Your task to perform on an android device: Search for Italian restaurants on Maps Image 0: 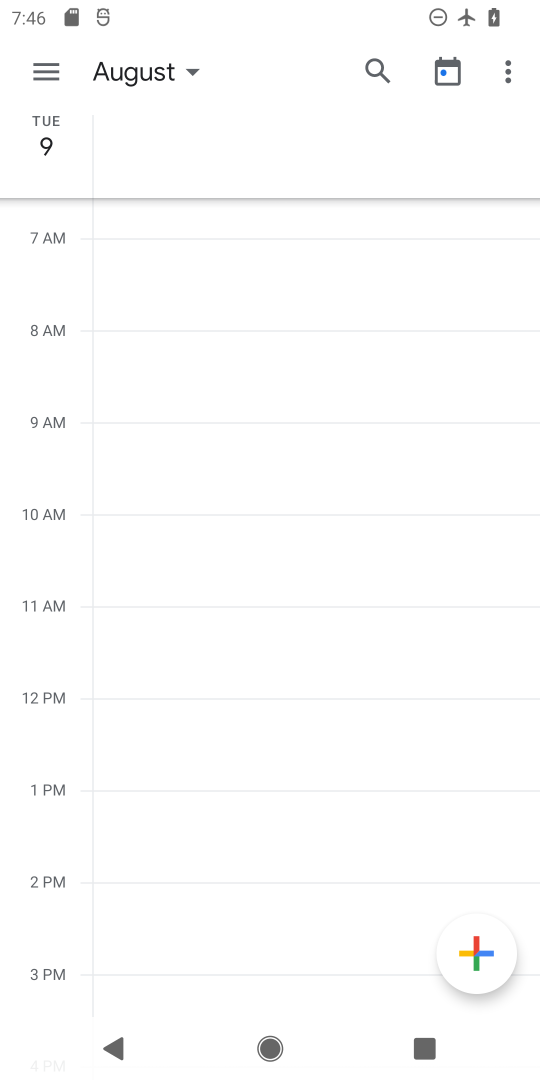
Step 0: press home button
Your task to perform on an android device: Search for Italian restaurants on Maps Image 1: 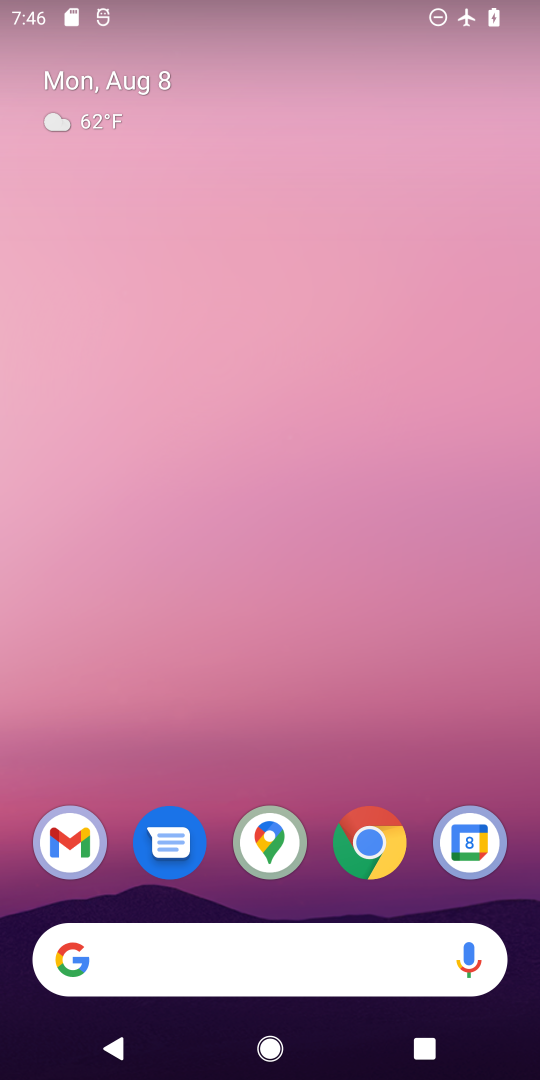
Step 1: drag from (319, 921) to (253, 207)
Your task to perform on an android device: Search for Italian restaurants on Maps Image 2: 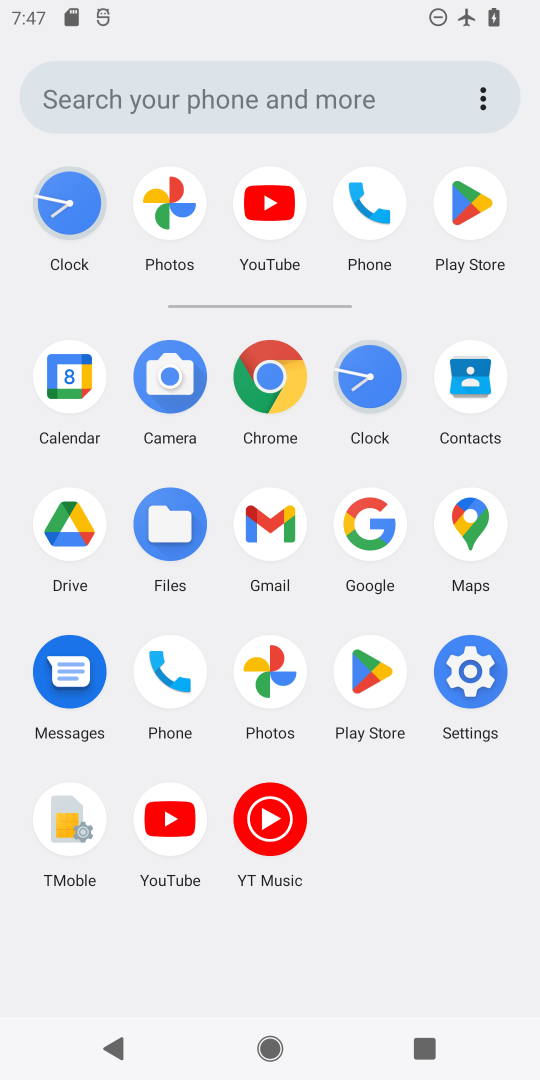
Step 2: click (478, 530)
Your task to perform on an android device: Search for Italian restaurants on Maps Image 3: 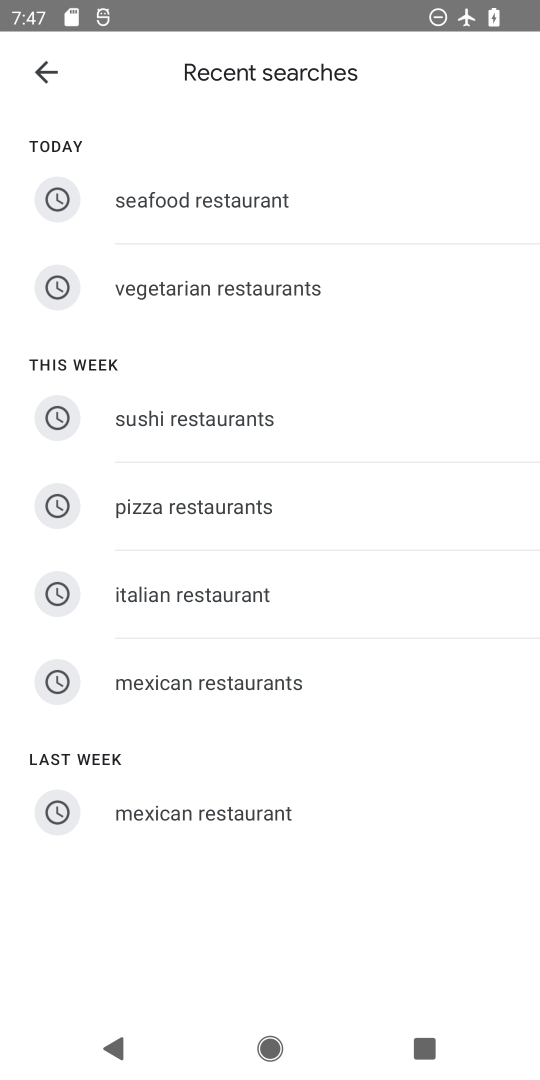
Step 3: click (217, 614)
Your task to perform on an android device: Search for Italian restaurants on Maps Image 4: 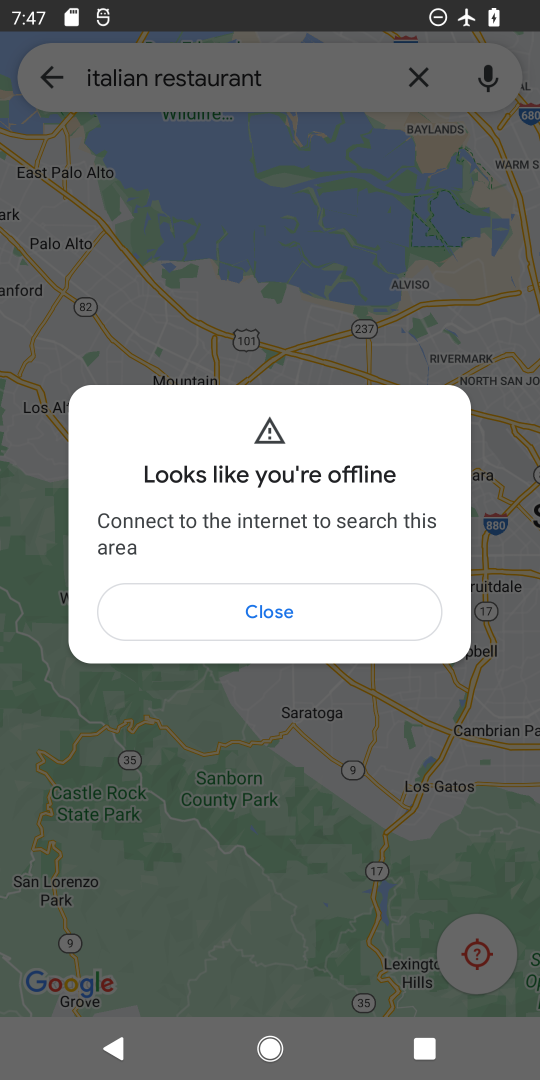
Step 4: click (260, 632)
Your task to perform on an android device: Search for Italian restaurants on Maps Image 5: 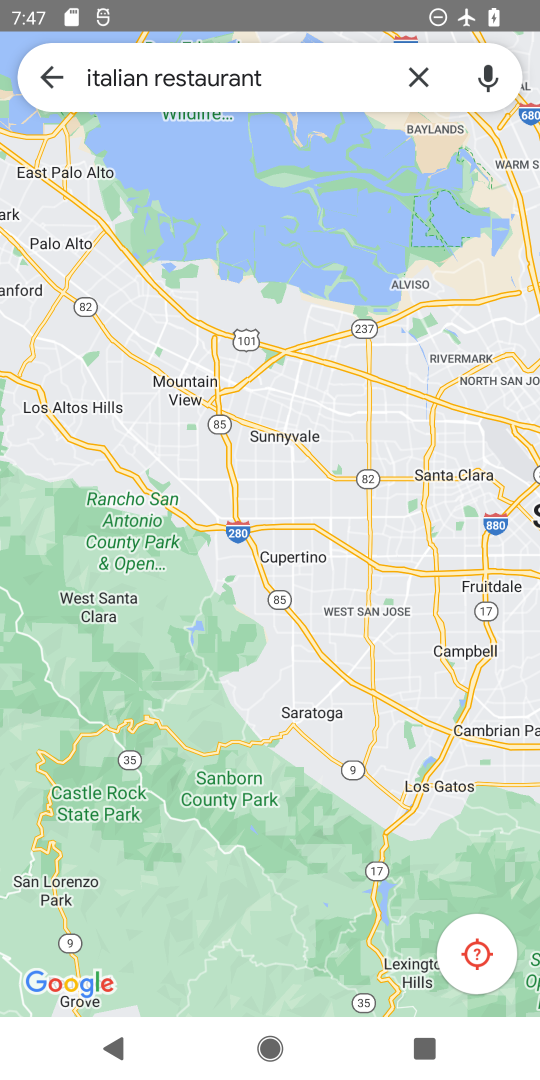
Step 5: task complete